Your task to perform on an android device: open a new tab in the chrome app Image 0: 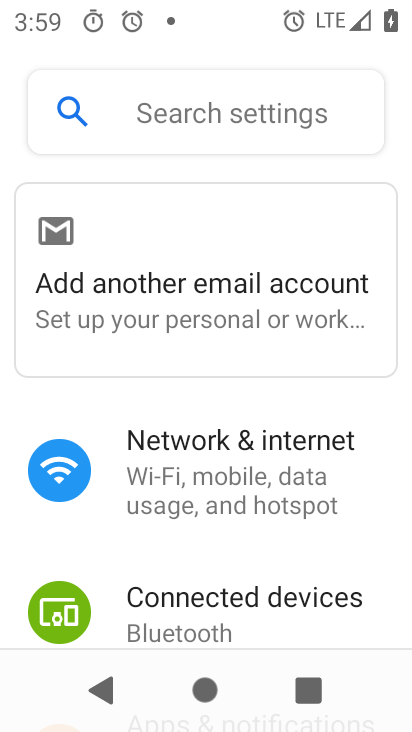
Step 0: press home button
Your task to perform on an android device: open a new tab in the chrome app Image 1: 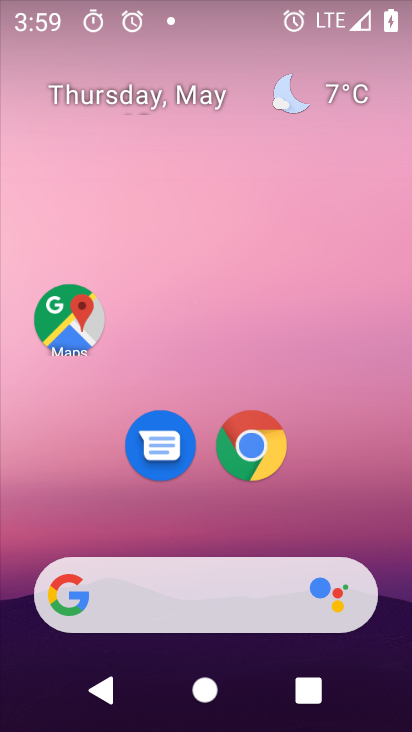
Step 1: click (259, 458)
Your task to perform on an android device: open a new tab in the chrome app Image 2: 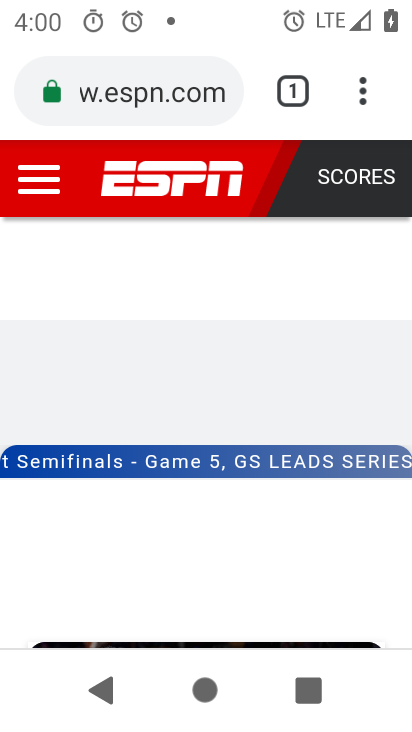
Step 2: click (367, 98)
Your task to perform on an android device: open a new tab in the chrome app Image 3: 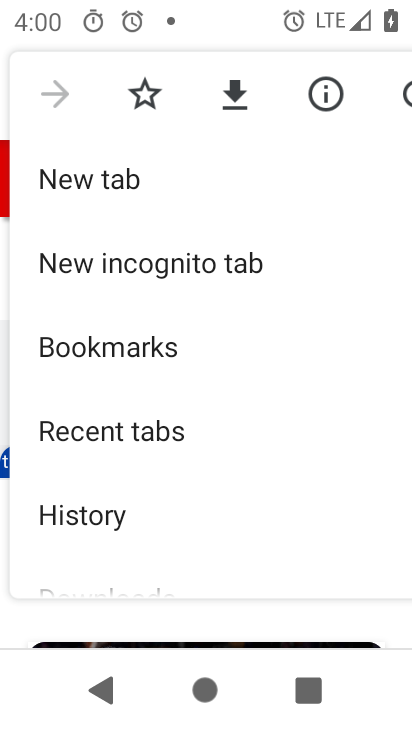
Step 3: click (108, 185)
Your task to perform on an android device: open a new tab in the chrome app Image 4: 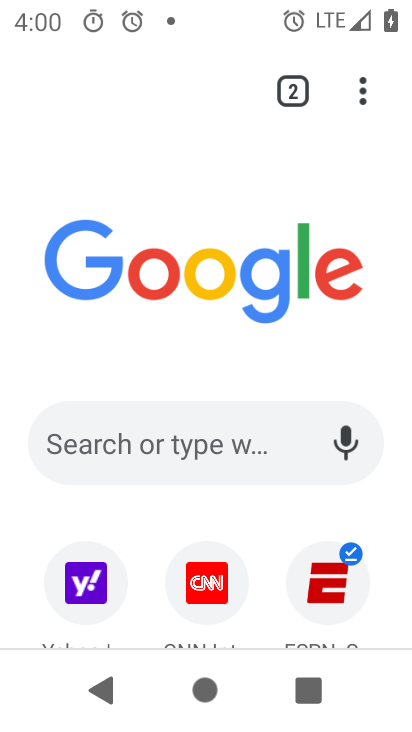
Step 4: task complete